Your task to perform on an android device: set the timer Image 0: 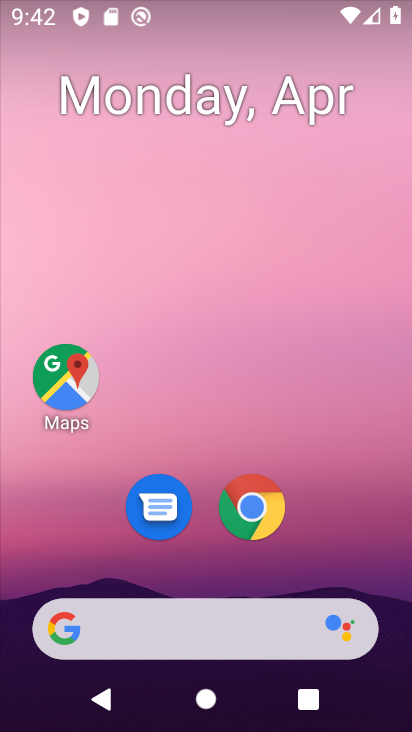
Step 0: drag from (369, 554) to (353, 215)
Your task to perform on an android device: set the timer Image 1: 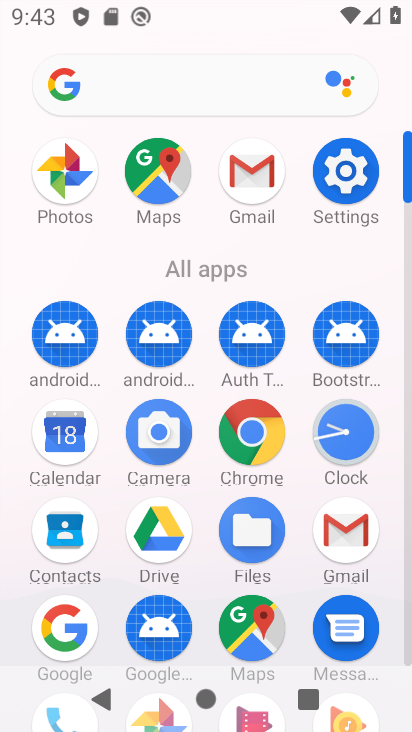
Step 1: click (331, 444)
Your task to perform on an android device: set the timer Image 2: 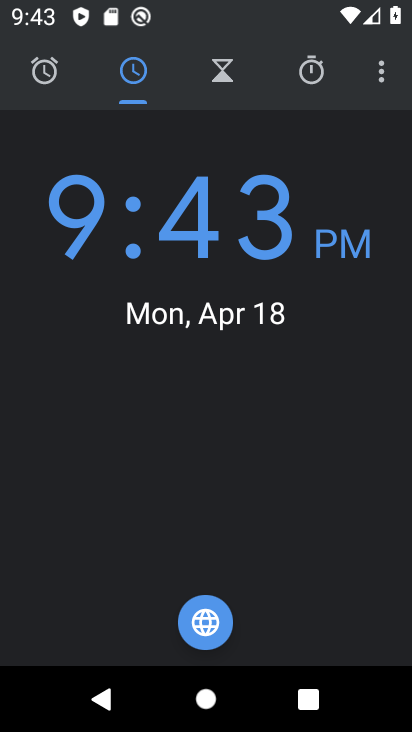
Step 2: click (233, 79)
Your task to perform on an android device: set the timer Image 3: 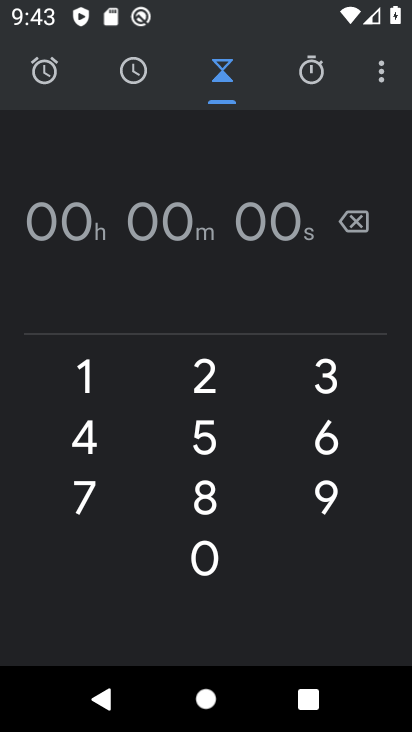
Step 3: click (92, 362)
Your task to perform on an android device: set the timer Image 4: 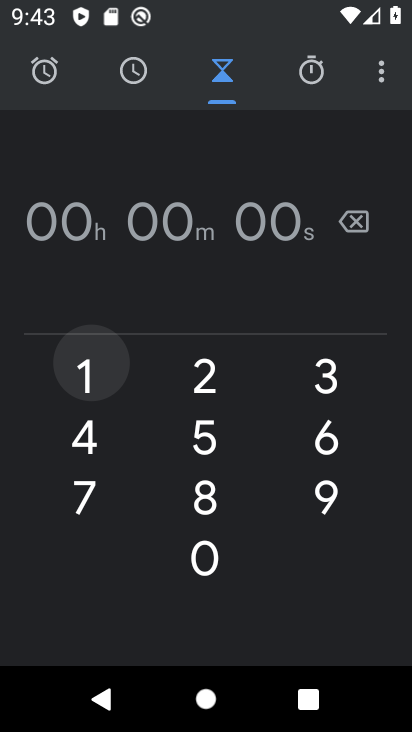
Step 4: click (202, 363)
Your task to perform on an android device: set the timer Image 5: 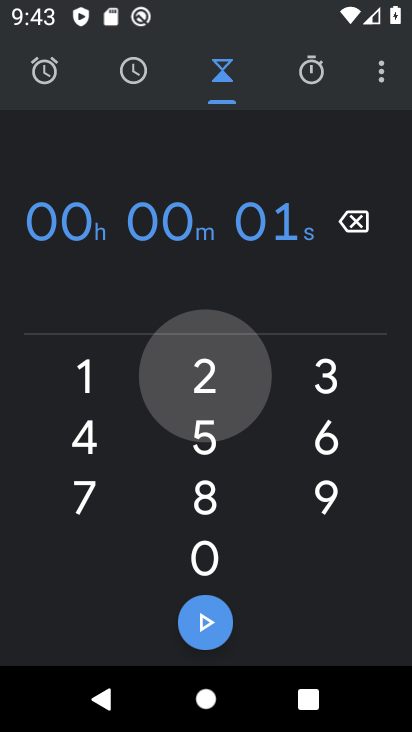
Step 5: click (316, 369)
Your task to perform on an android device: set the timer Image 6: 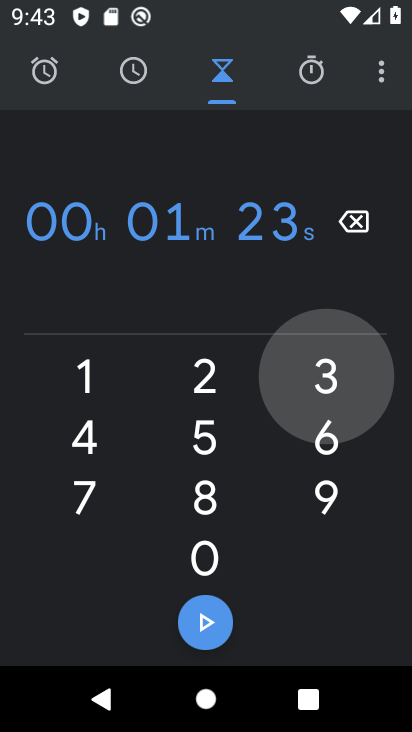
Step 6: click (91, 429)
Your task to perform on an android device: set the timer Image 7: 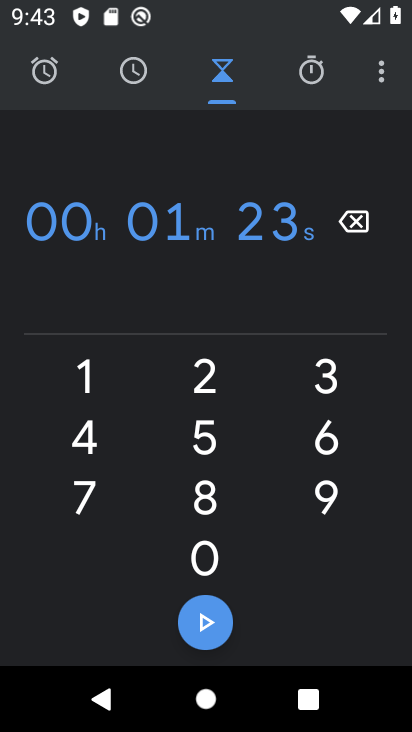
Step 7: click (229, 431)
Your task to perform on an android device: set the timer Image 8: 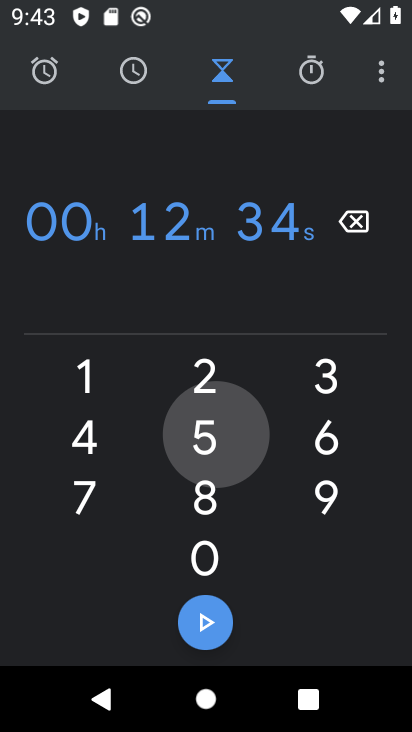
Step 8: click (324, 428)
Your task to perform on an android device: set the timer Image 9: 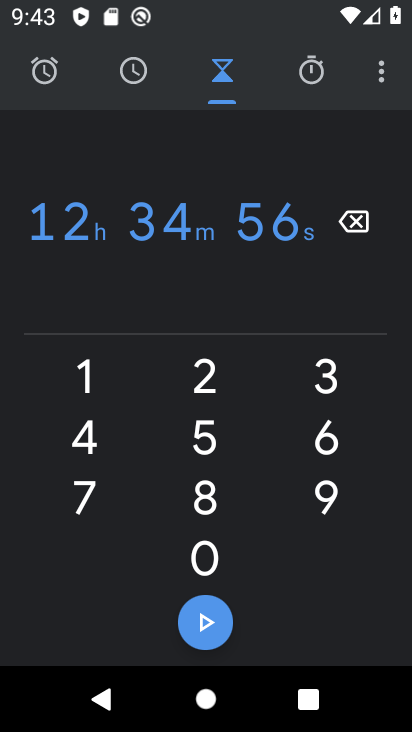
Step 9: task complete